Your task to perform on an android device: Open ESPN.com Image 0: 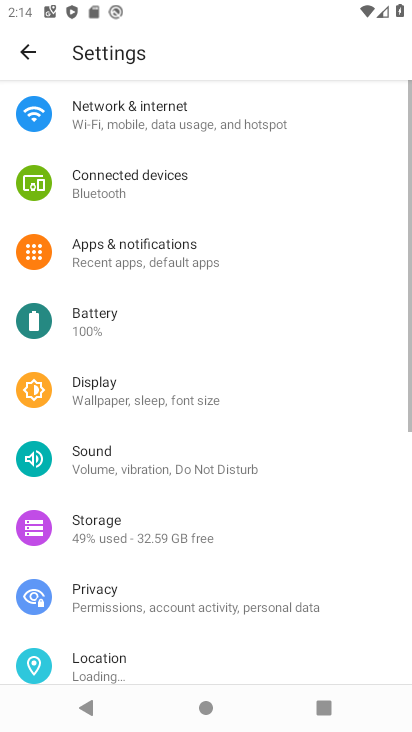
Step 0: press home button
Your task to perform on an android device: Open ESPN.com Image 1: 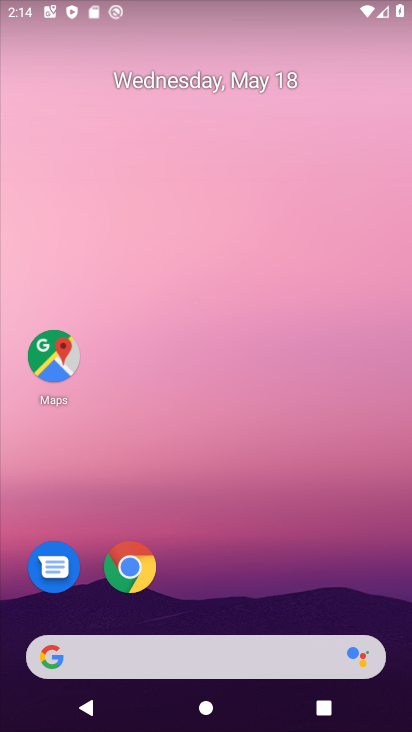
Step 1: drag from (214, 580) to (239, 200)
Your task to perform on an android device: Open ESPN.com Image 2: 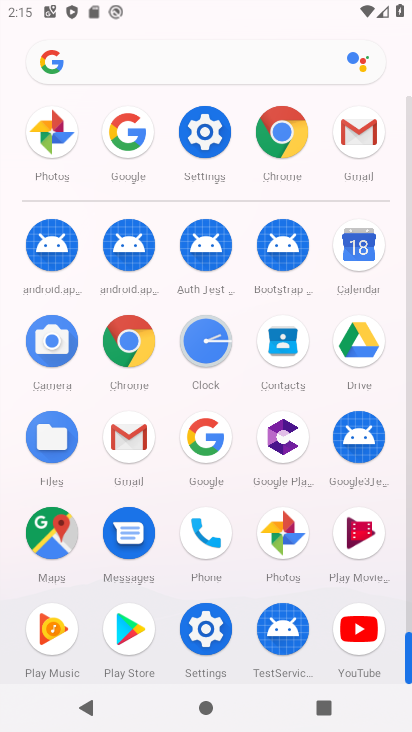
Step 2: click (266, 130)
Your task to perform on an android device: Open ESPN.com Image 3: 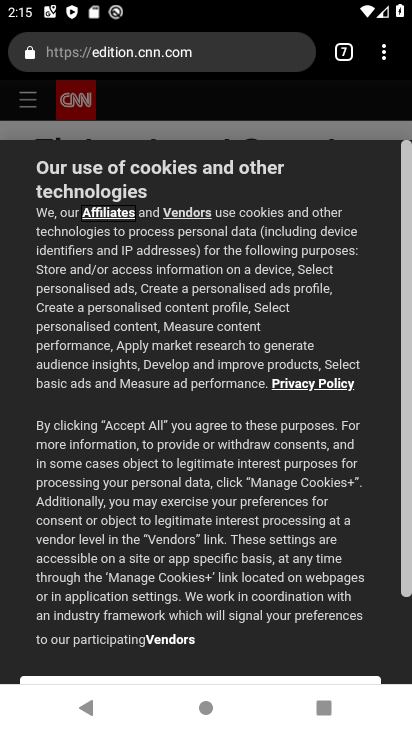
Step 3: click (381, 52)
Your task to perform on an android device: Open ESPN.com Image 4: 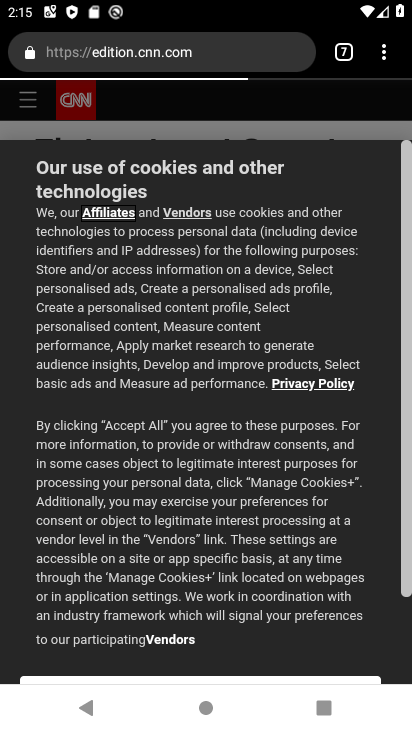
Step 4: click (369, 55)
Your task to perform on an android device: Open ESPN.com Image 5: 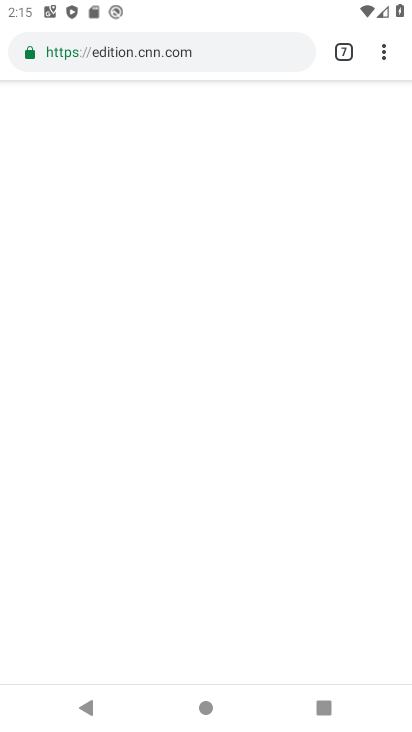
Step 5: click (381, 54)
Your task to perform on an android device: Open ESPN.com Image 6: 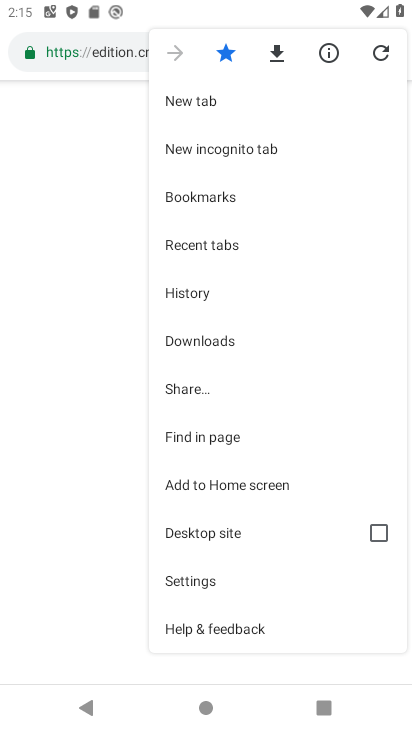
Step 6: click (200, 98)
Your task to perform on an android device: Open ESPN.com Image 7: 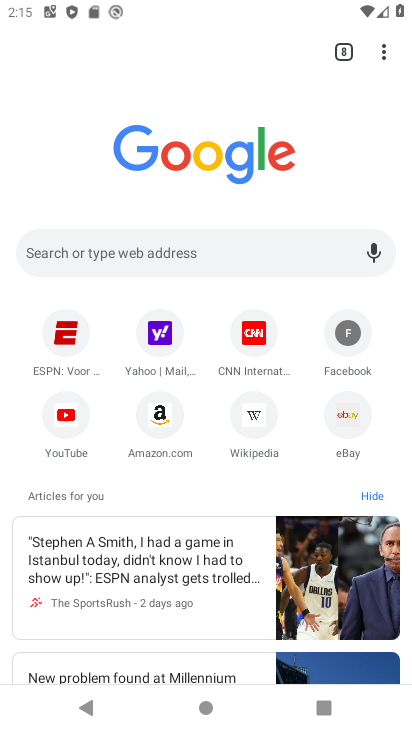
Step 7: click (54, 337)
Your task to perform on an android device: Open ESPN.com Image 8: 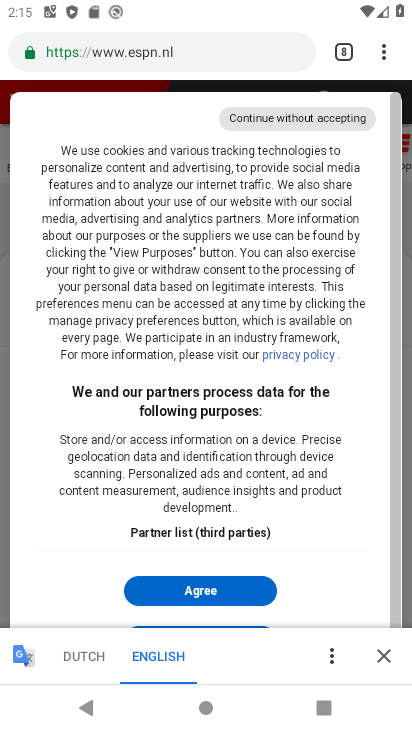
Step 8: task complete